Your task to perform on an android device: open sync settings in chrome Image 0: 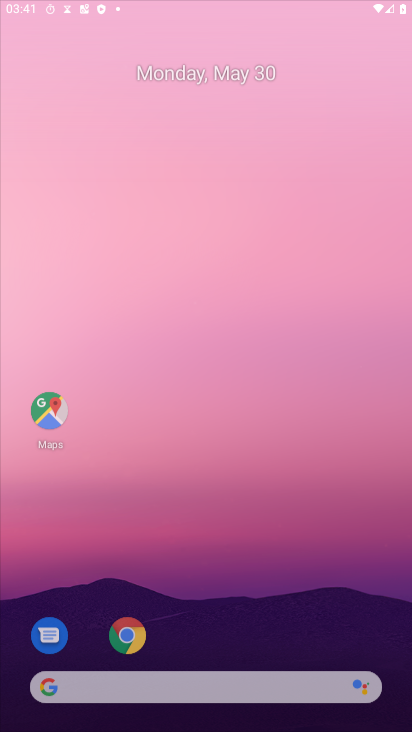
Step 0: press home button
Your task to perform on an android device: open sync settings in chrome Image 1: 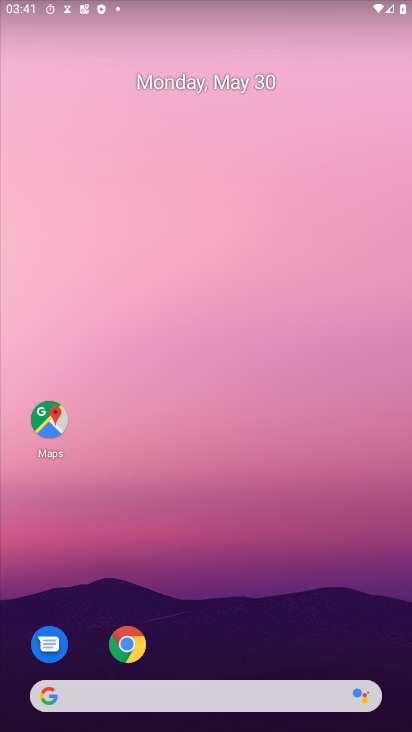
Step 1: click (122, 645)
Your task to perform on an android device: open sync settings in chrome Image 2: 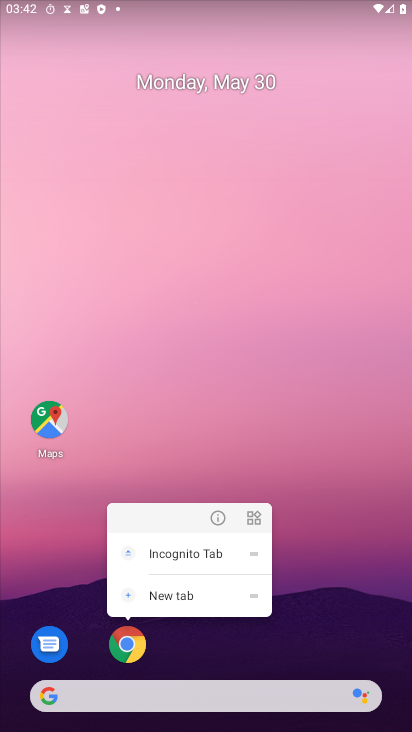
Step 2: drag from (310, 643) to (322, 0)
Your task to perform on an android device: open sync settings in chrome Image 3: 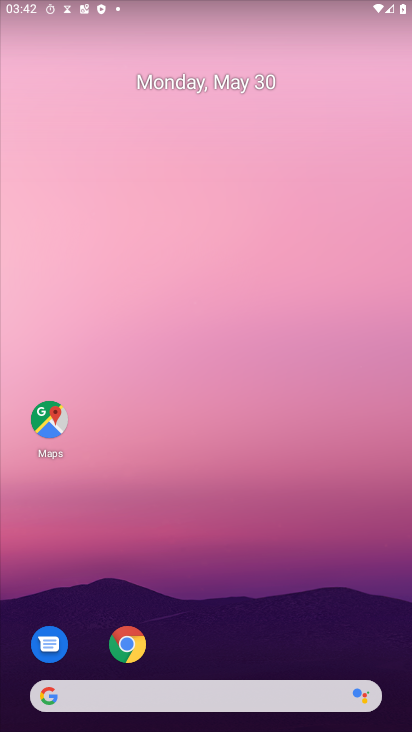
Step 3: drag from (286, 627) to (241, 0)
Your task to perform on an android device: open sync settings in chrome Image 4: 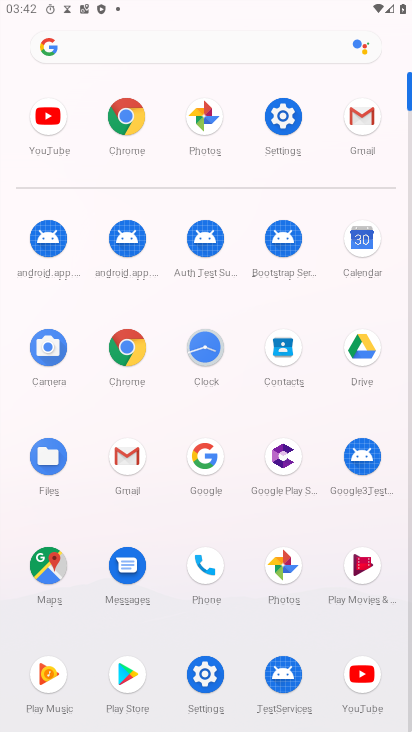
Step 4: click (127, 116)
Your task to perform on an android device: open sync settings in chrome Image 5: 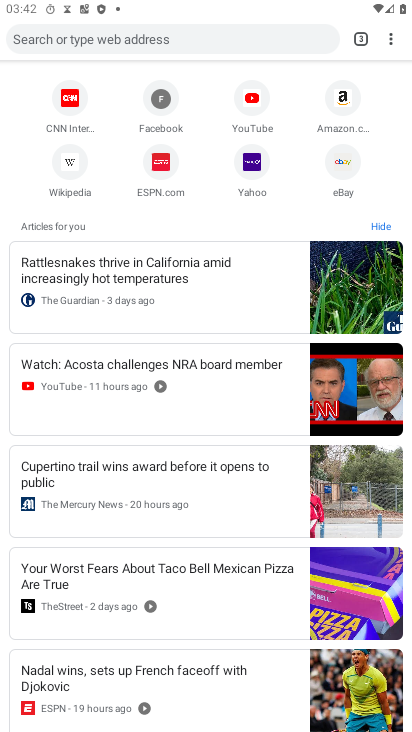
Step 5: drag from (390, 38) to (305, 341)
Your task to perform on an android device: open sync settings in chrome Image 6: 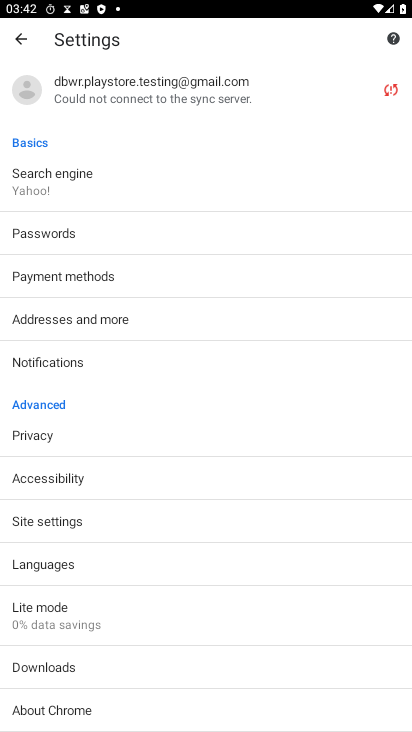
Step 6: click (140, 85)
Your task to perform on an android device: open sync settings in chrome Image 7: 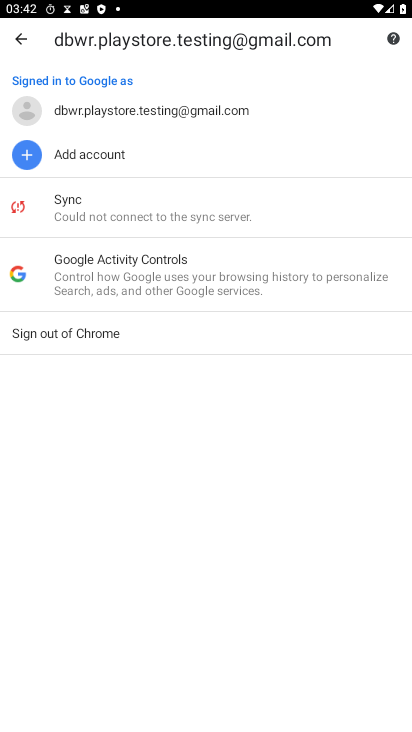
Step 7: click (115, 222)
Your task to perform on an android device: open sync settings in chrome Image 8: 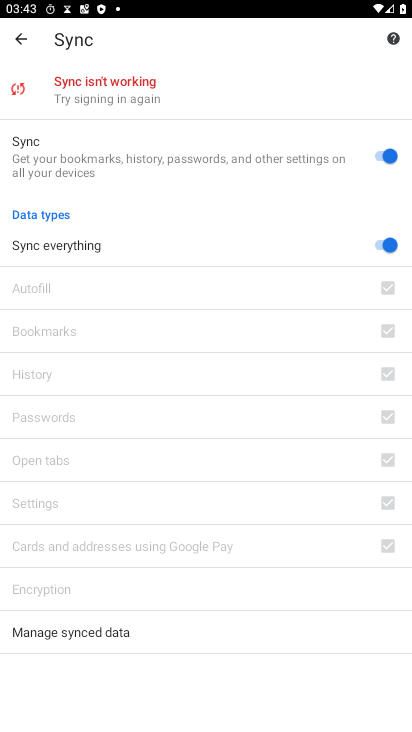
Step 8: task complete